Your task to perform on an android device: Open Google Chrome and open the bookmarks view Image 0: 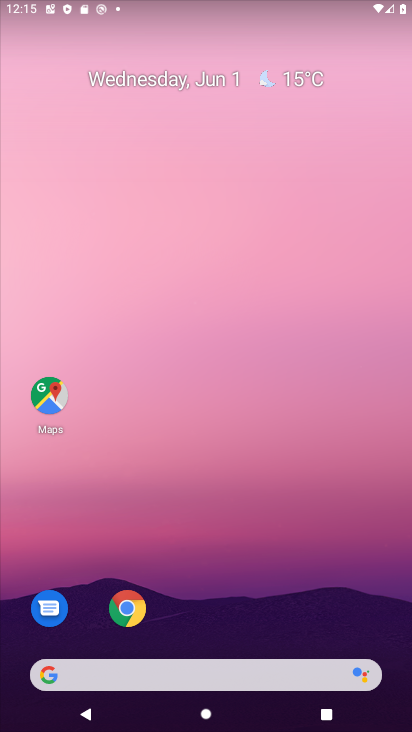
Step 0: click (126, 607)
Your task to perform on an android device: Open Google Chrome and open the bookmarks view Image 1: 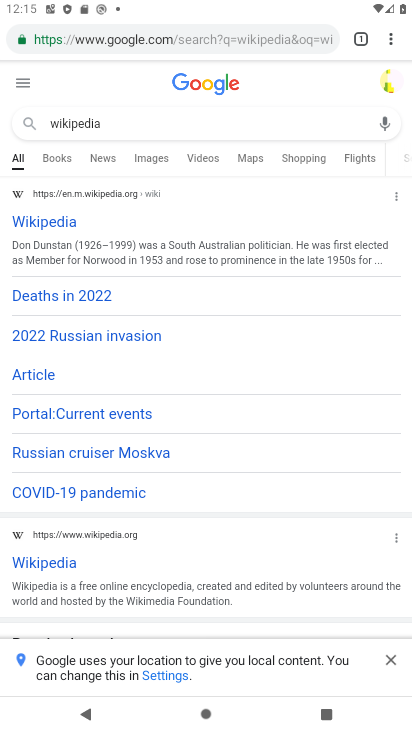
Step 1: click (387, 44)
Your task to perform on an android device: Open Google Chrome and open the bookmarks view Image 2: 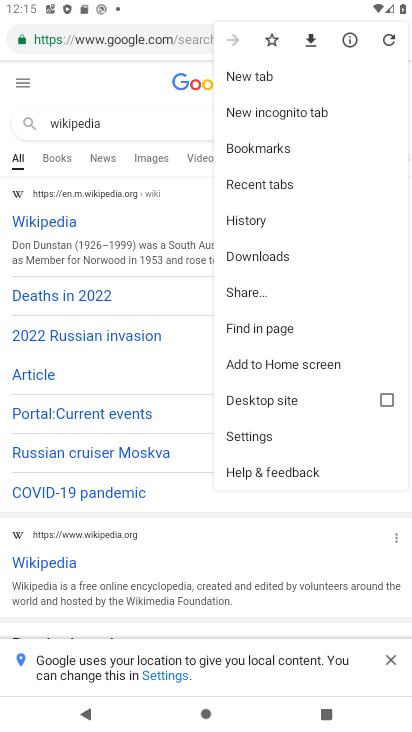
Step 2: click (261, 153)
Your task to perform on an android device: Open Google Chrome and open the bookmarks view Image 3: 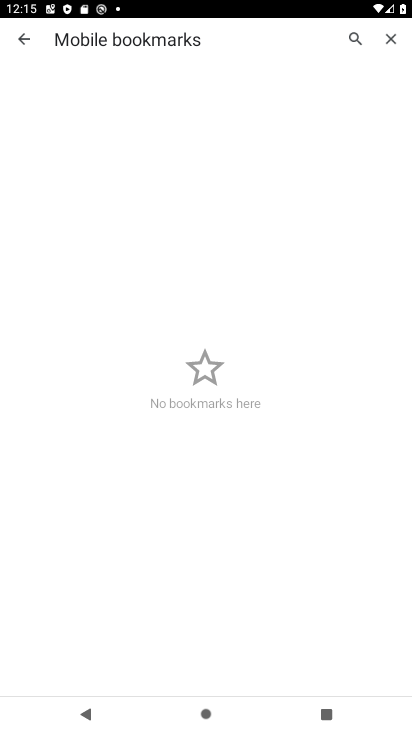
Step 3: task complete